Your task to perform on an android device: Go to notification settings Image 0: 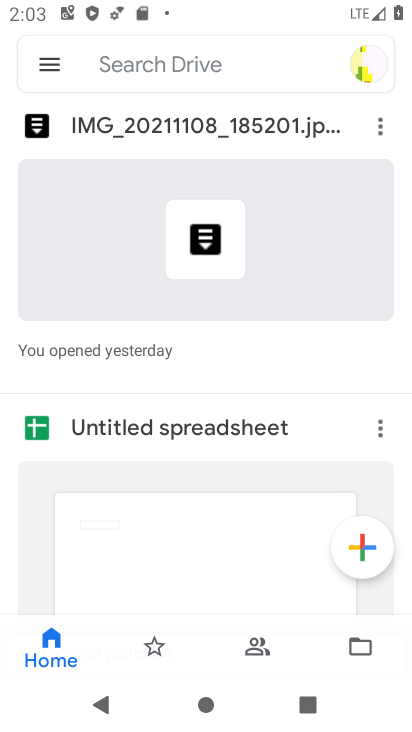
Step 0: press home button
Your task to perform on an android device: Go to notification settings Image 1: 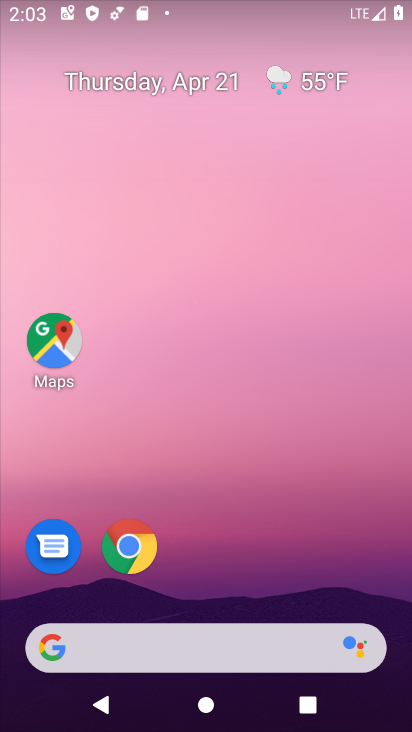
Step 1: drag from (213, 595) to (207, 278)
Your task to perform on an android device: Go to notification settings Image 2: 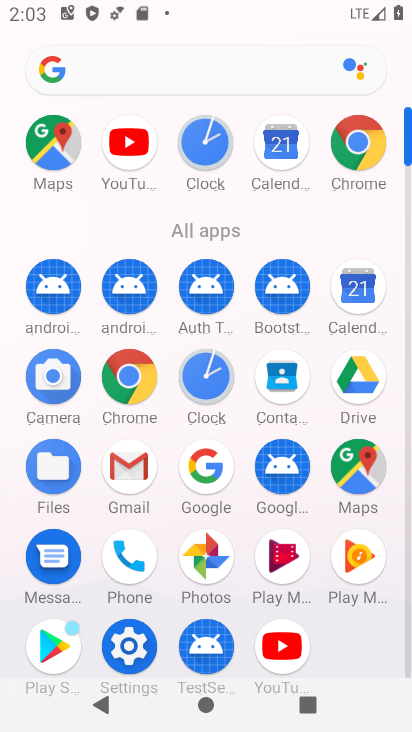
Step 2: click (136, 653)
Your task to perform on an android device: Go to notification settings Image 3: 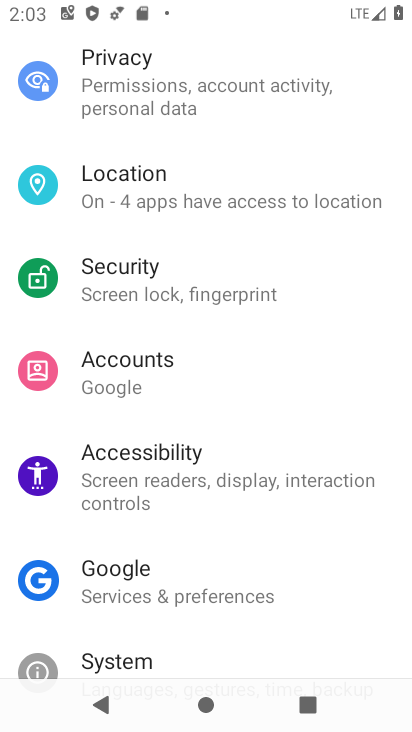
Step 3: drag from (183, 74) to (190, 679)
Your task to perform on an android device: Go to notification settings Image 4: 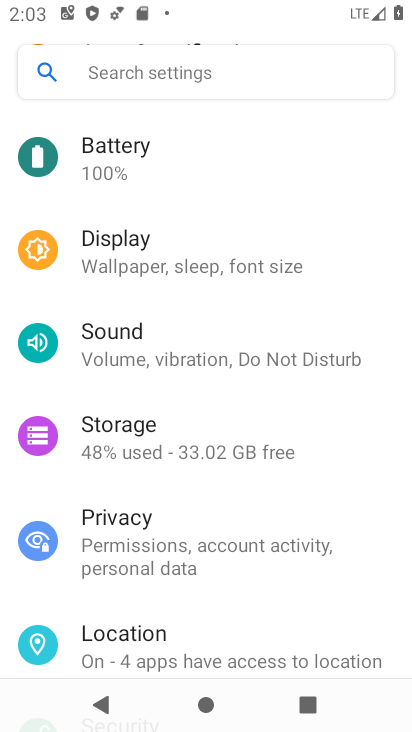
Step 4: drag from (218, 147) to (227, 699)
Your task to perform on an android device: Go to notification settings Image 5: 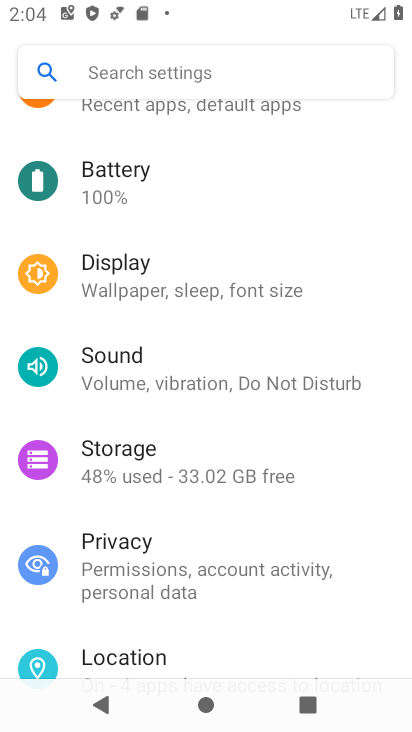
Step 5: click (206, 106)
Your task to perform on an android device: Go to notification settings Image 6: 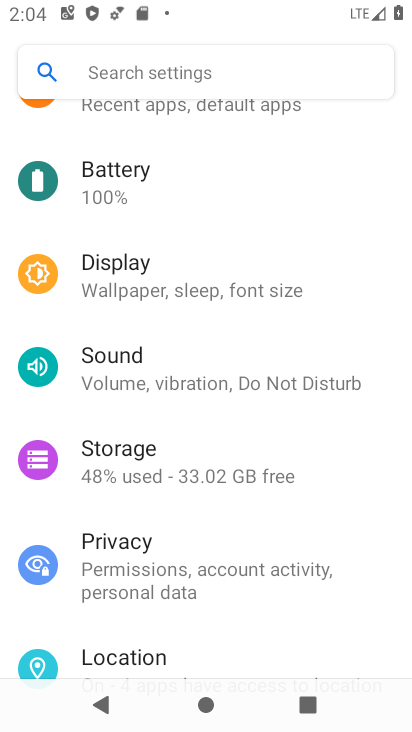
Step 6: task complete